Your task to perform on an android device: open app "Booking.com: Hotels and more" (install if not already installed), go to login, and select forgot password Image 0: 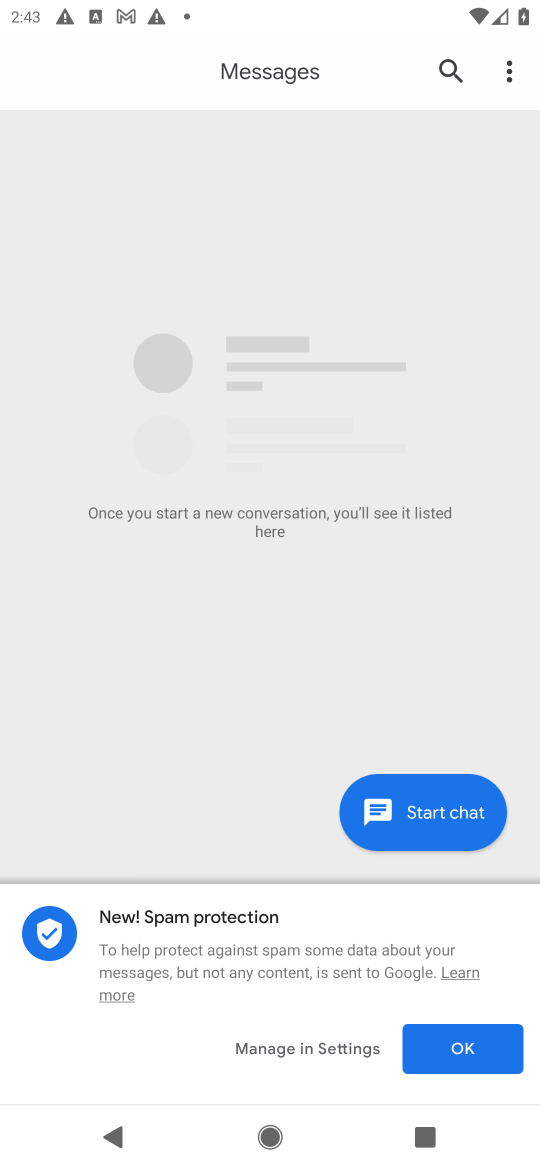
Step 0: press home button
Your task to perform on an android device: open app "Booking.com: Hotels and more" (install if not already installed), go to login, and select forgot password Image 1: 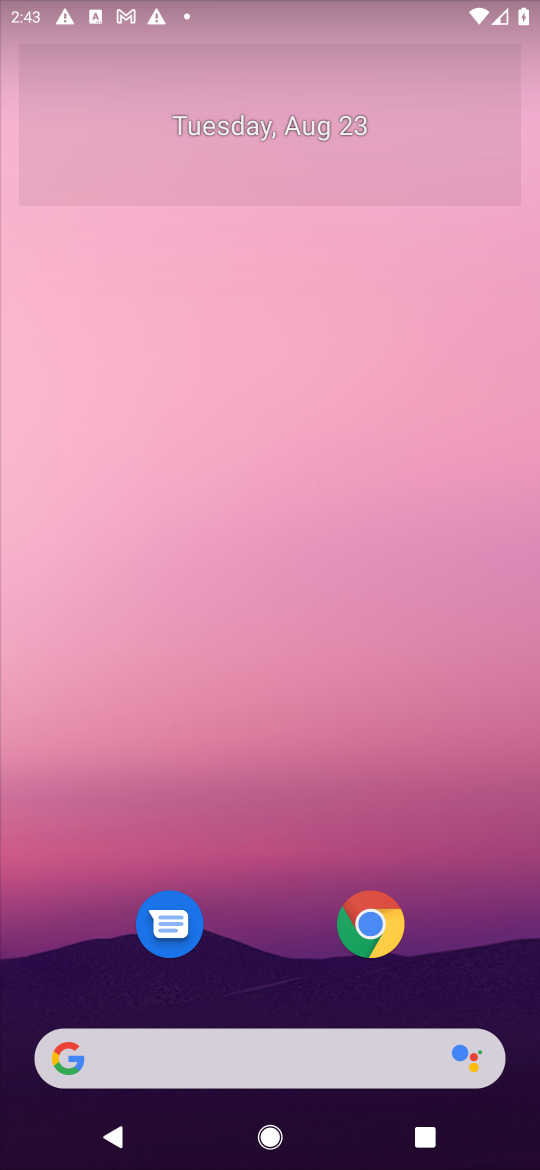
Step 1: drag from (486, 972) to (447, 186)
Your task to perform on an android device: open app "Booking.com: Hotels and more" (install if not already installed), go to login, and select forgot password Image 2: 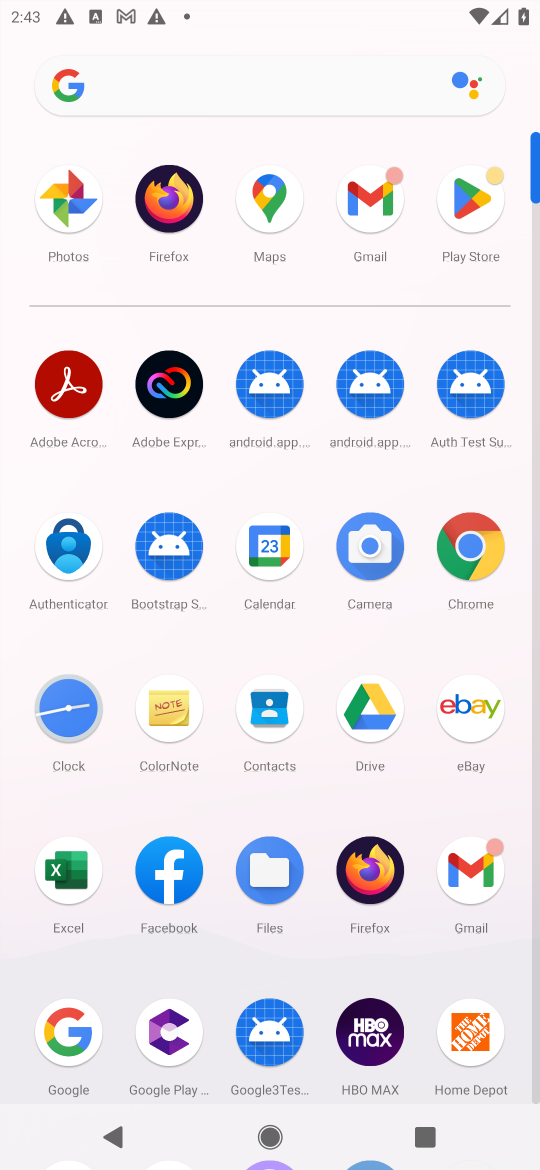
Step 2: click (469, 184)
Your task to perform on an android device: open app "Booking.com: Hotels and more" (install if not already installed), go to login, and select forgot password Image 3: 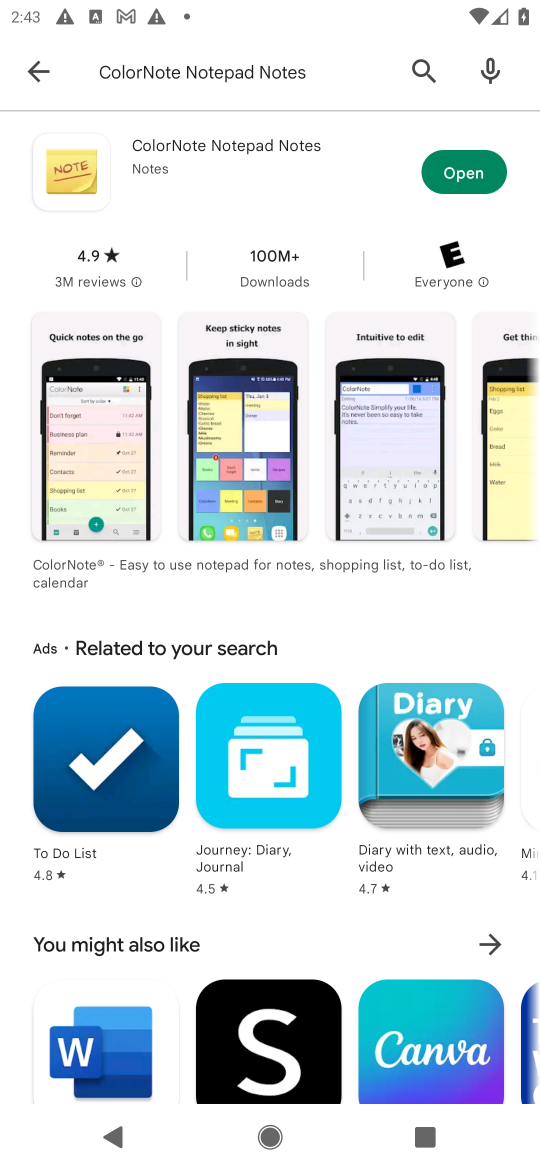
Step 3: press back button
Your task to perform on an android device: open app "Booking.com: Hotels and more" (install if not already installed), go to login, and select forgot password Image 4: 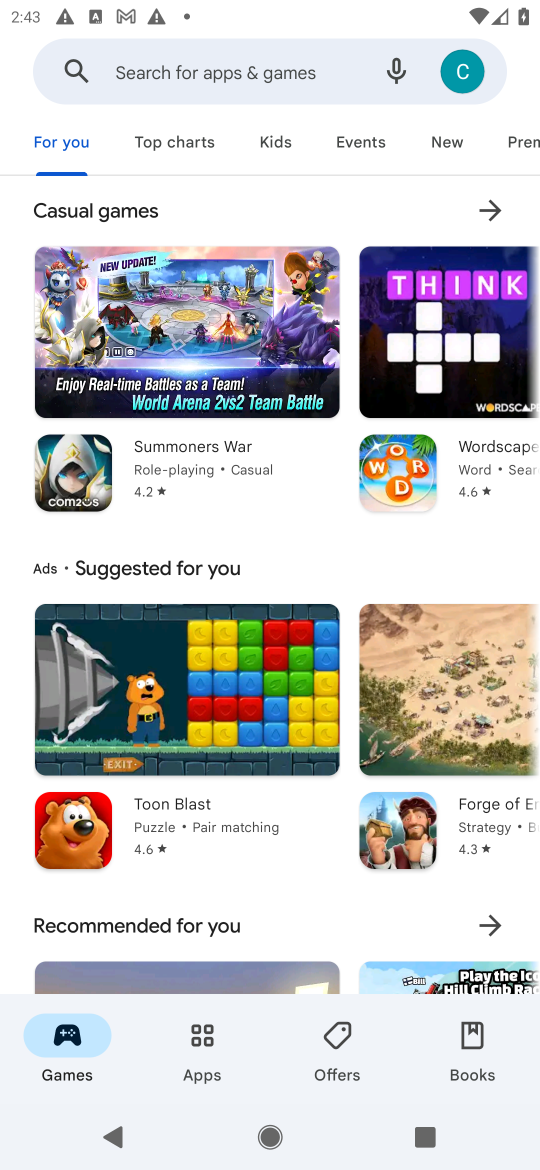
Step 4: click (278, 77)
Your task to perform on an android device: open app "Booking.com: Hotels and more" (install if not already installed), go to login, and select forgot password Image 5: 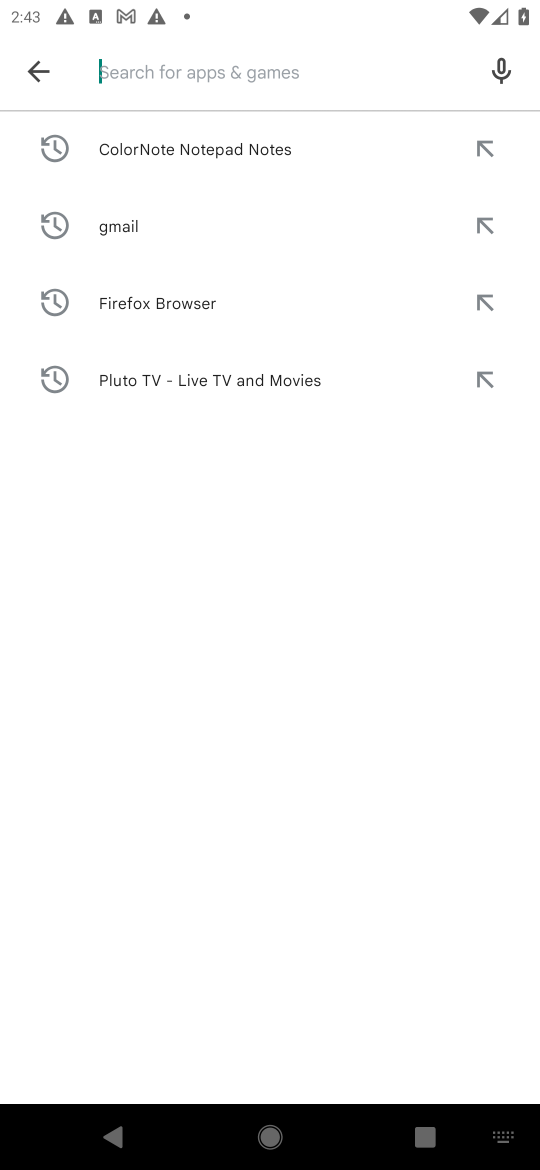
Step 5: press enter
Your task to perform on an android device: open app "Booking.com: Hotels and more" (install if not already installed), go to login, and select forgot password Image 6: 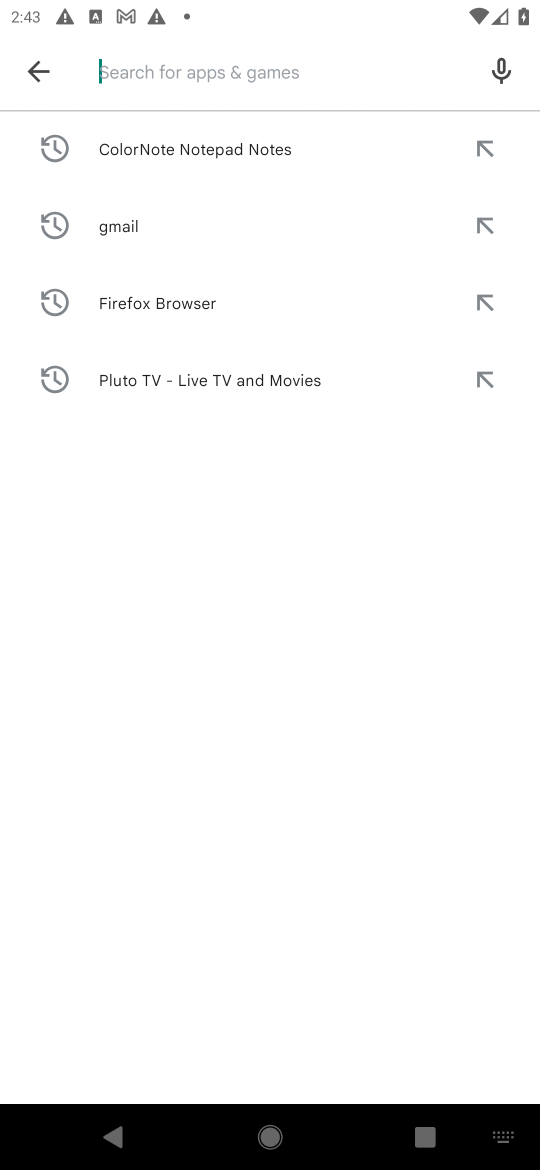
Step 6: type "Booking.com: Hotels and more"
Your task to perform on an android device: open app "Booking.com: Hotels and more" (install if not already installed), go to login, and select forgot password Image 7: 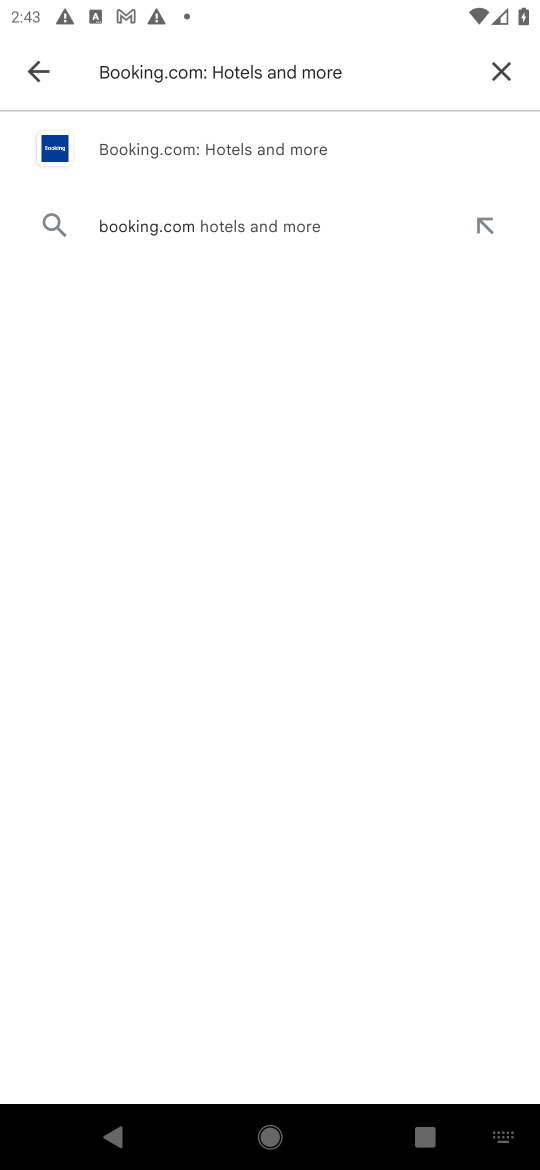
Step 7: click (276, 146)
Your task to perform on an android device: open app "Booking.com: Hotels and more" (install if not already installed), go to login, and select forgot password Image 8: 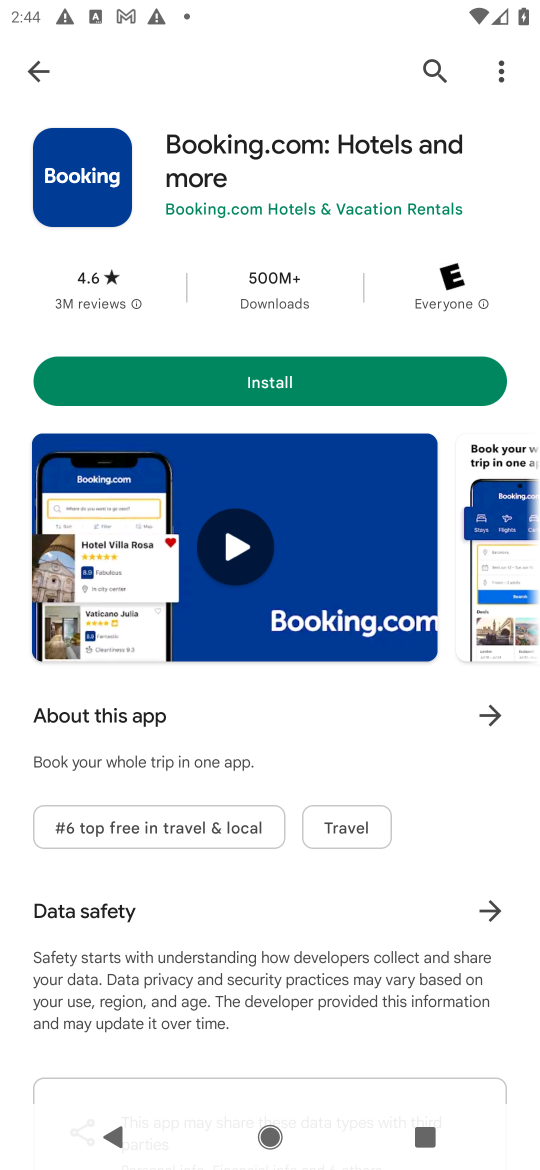
Step 8: click (292, 386)
Your task to perform on an android device: open app "Booking.com: Hotels and more" (install if not already installed), go to login, and select forgot password Image 9: 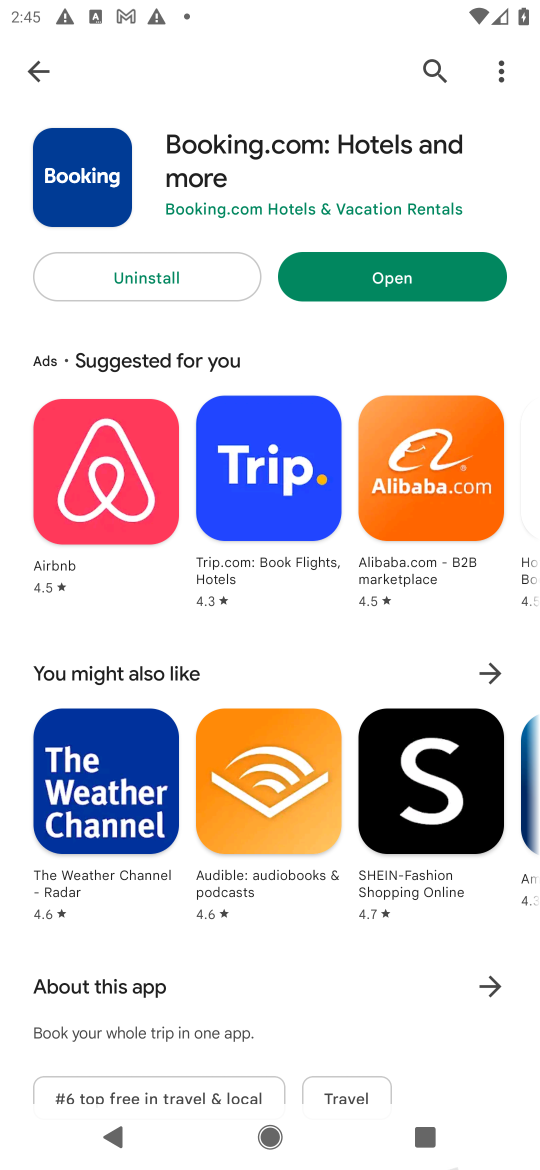
Step 9: click (391, 282)
Your task to perform on an android device: open app "Booking.com: Hotels and more" (install if not already installed), go to login, and select forgot password Image 10: 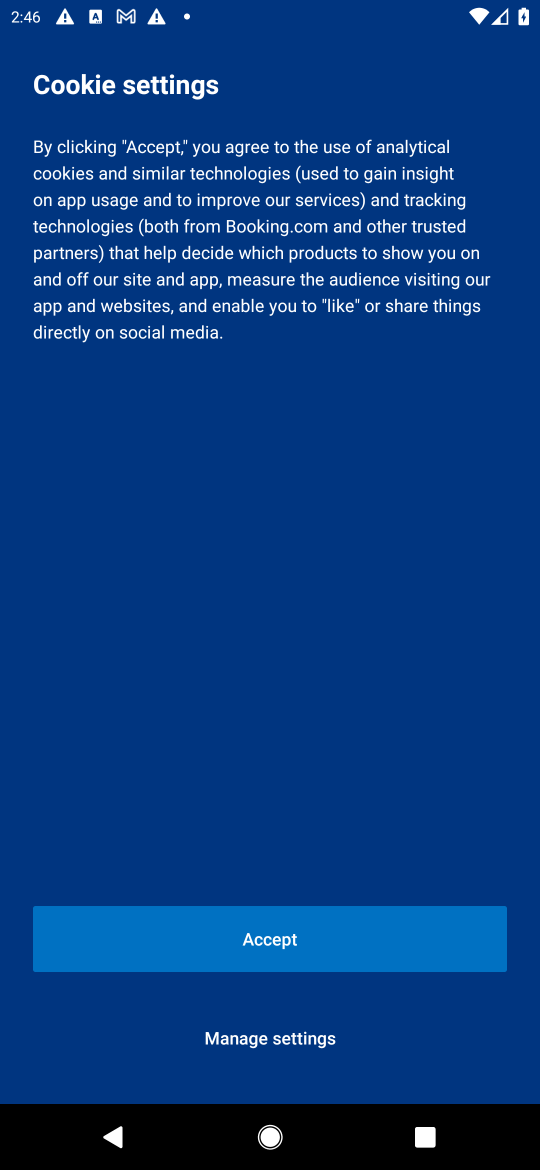
Step 10: click (328, 947)
Your task to perform on an android device: open app "Booking.com: Hotels and more" (install if not already installed), go to login, and select forgot password Image 11: 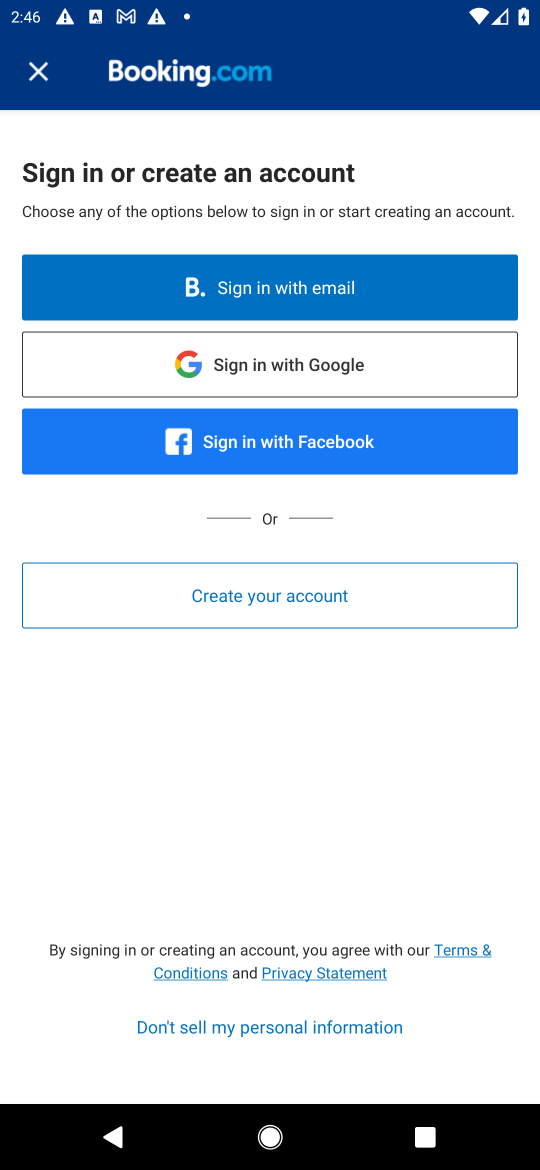
Step 11: task complete